Your task to perform on an android device: Open the phone app and click the voicemail tab. Image 0: 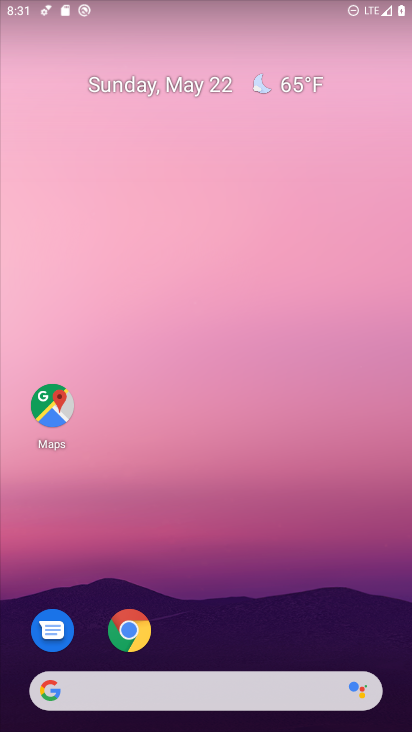
Step 0: drag from (181, 686) to (352, 100)
Your task to perform on an android device: Open the phone app and click the voicemail tab. Image 1: 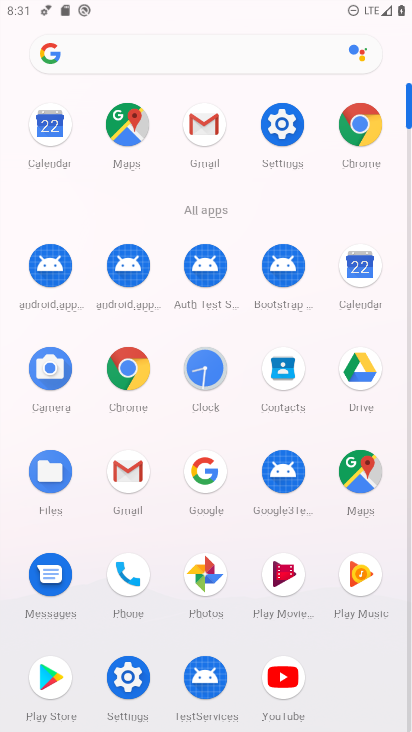
Step 1: click (128, 575)
Your task to perform on an android device: Open the phone app and click the voicemail tab. Image 2: 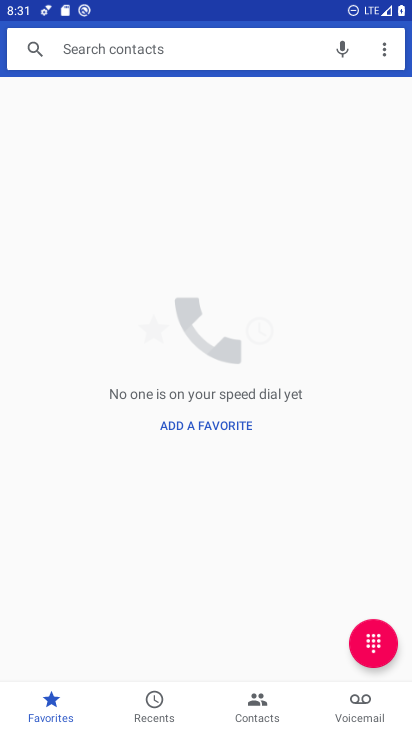
Step 2: click (375, 708)
Your task to perform on an android device: Open the phone app and click the voicemail tab. Image 3: 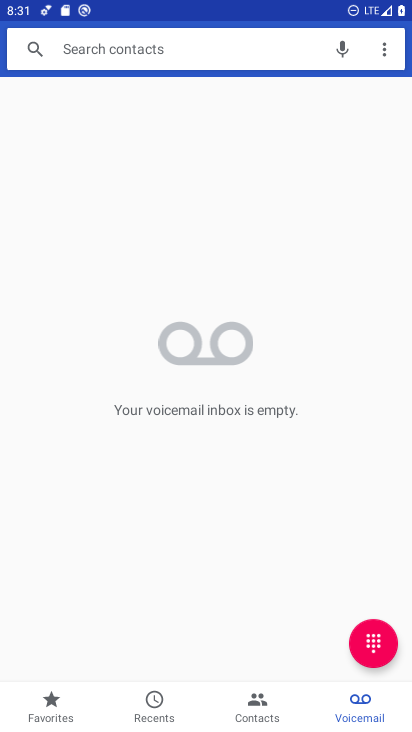
Step 3: task complete